Your task to perform on an android device: Open Youtube and go to "Your channel" Image 0: 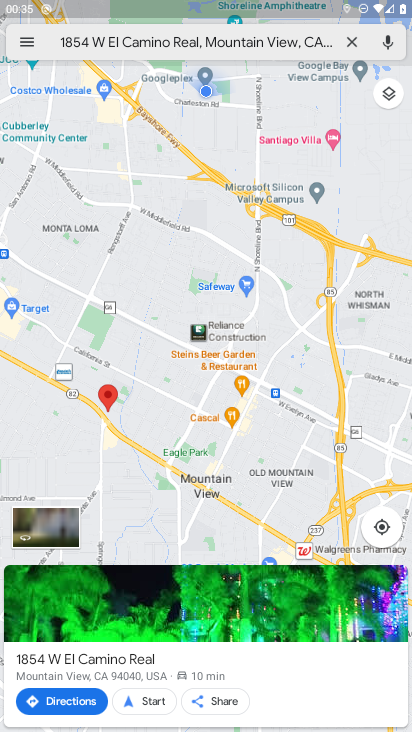
Step 0: press home button
Your task to perform on an android device: Open Youtube and go to "Your channel" Image 1: 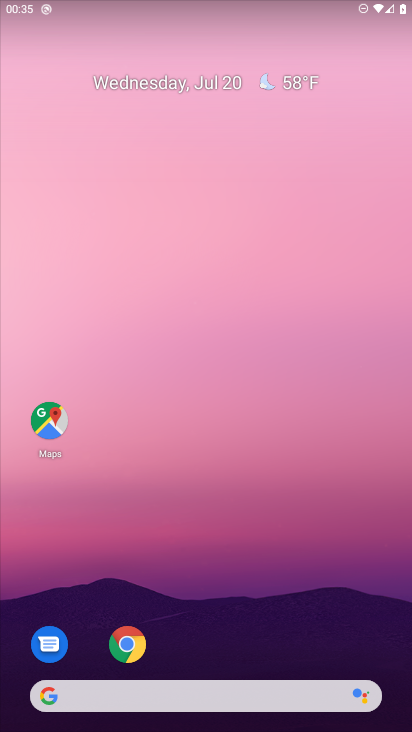
Step 1: drag from (20, 714) to (239, 38)
Your task to perform on an android device: Open Youtube and go to "Your channel" Image 2: 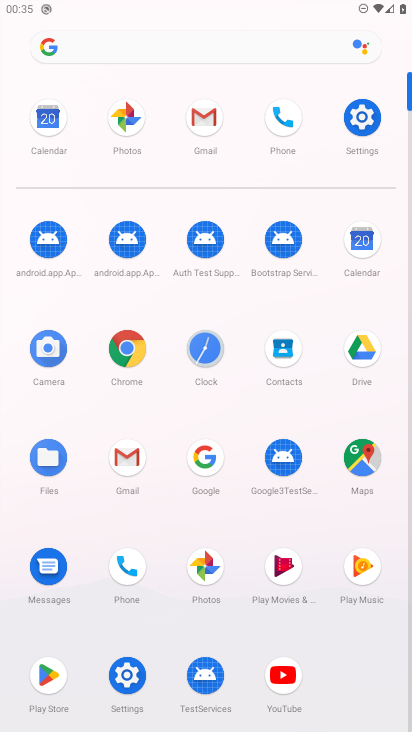
Step 2: click (287, 668)
Your task to perform on an android device: Open Youtube and go to "Your channel" Image 3: 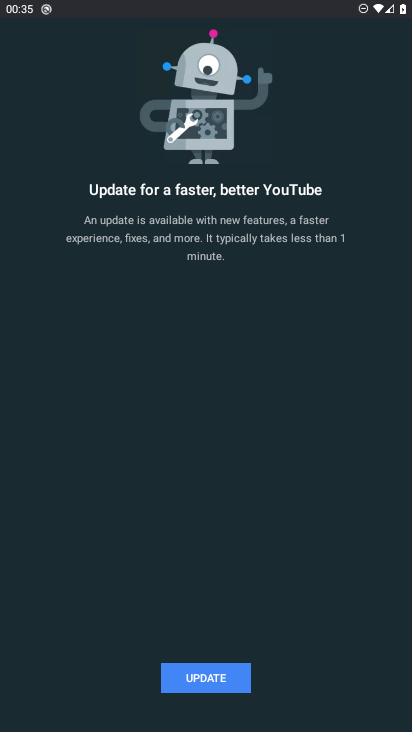
Step 3: click (203, 684)
Your task to perform on an android device: Open Youtube and go to "Your channel" Image 4: 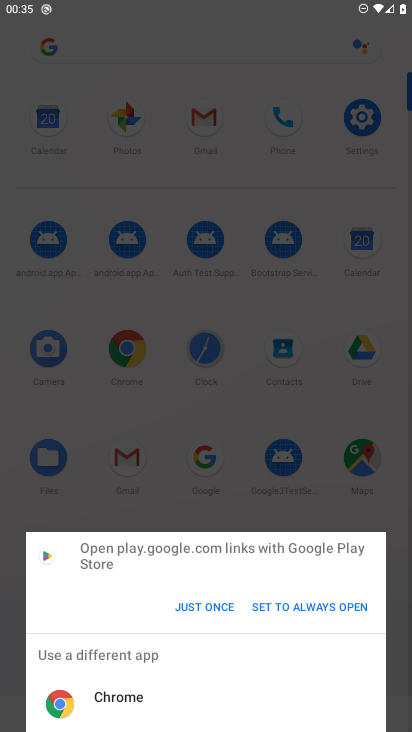
Step 4: click (202, 603)
Your task to perform on an android device: Open Youtube and go to "Your channel" Image 5: 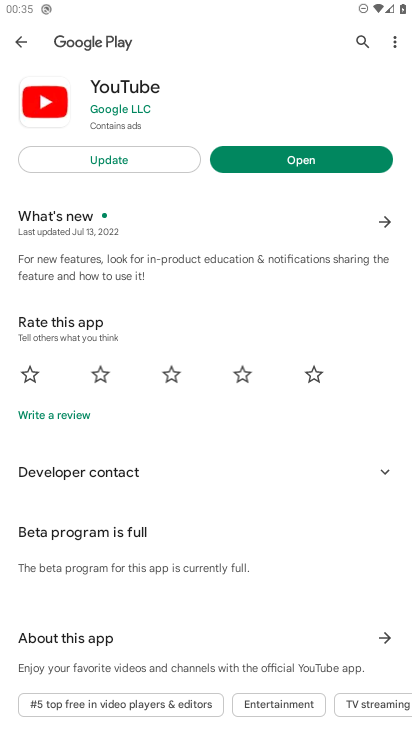
Step 5: click (307, 147)
Your task to perform on an android device: Open Youtube and go to "Your channel" Image 6: 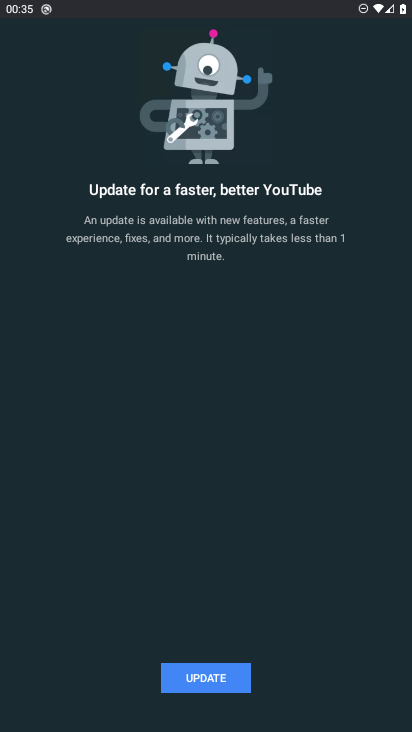
Step 6: task complete